Your task to perform on an android device: turn on the 12-hour format for clock Image 0: 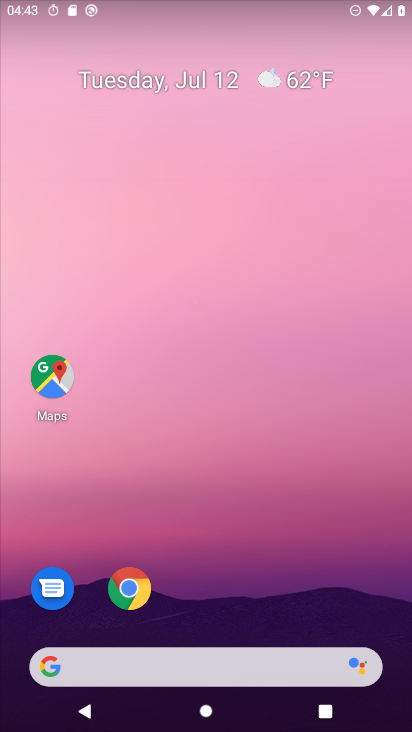
Step 0: drag from (232, 572) to (310, 102)
Your task to perform on an android device: turn on the 12-hour format for clock Image 1: 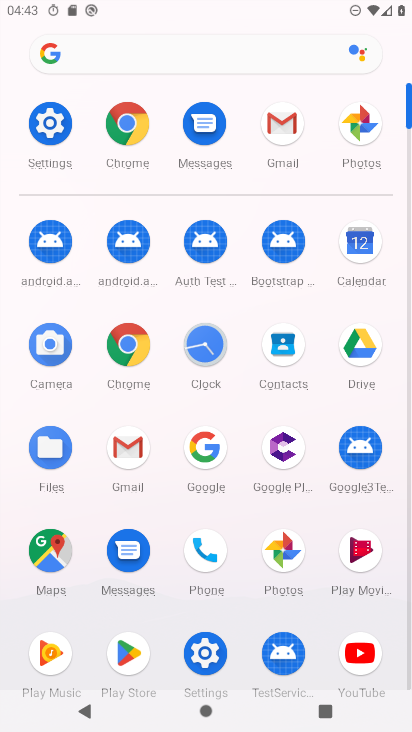
Step 1: click (210, 656)
Your task to perform on an android device: turn on the 12-hour format for clock Image 2: 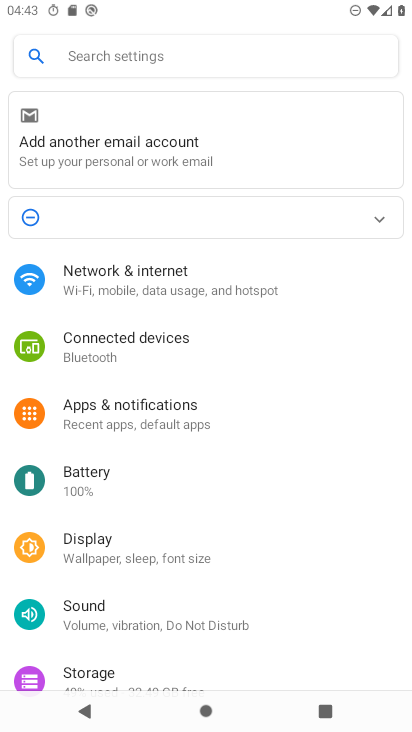
Step 2: drag from (109, 646) to (213, 303)
Your task to perform on an android device: turn on the 12-hour format for clock Image 3: 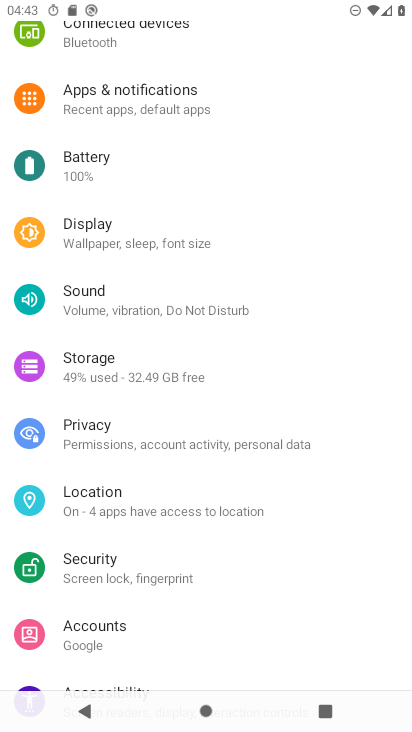
Step 3: drag from (148, 627) to (178, 302)
Your task to perform on an android device: turn on the 12-hour format for clock Image 4: 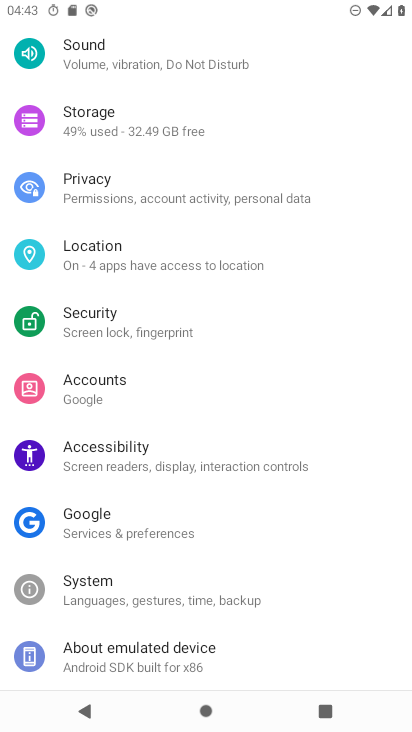
Step 4: click (128, 603)
Your task to perform on an android device: turn on the 12-hour format for clock Image 5: 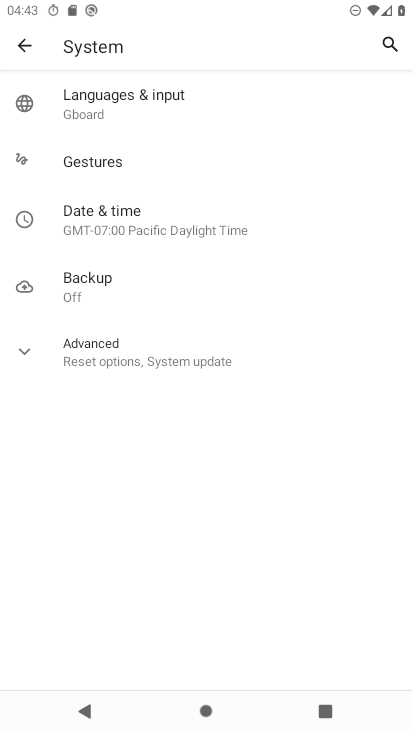
Step 5: click (177, 224)
Your task to perform on an android device: turn on the 12-hour format for clock Image 6: 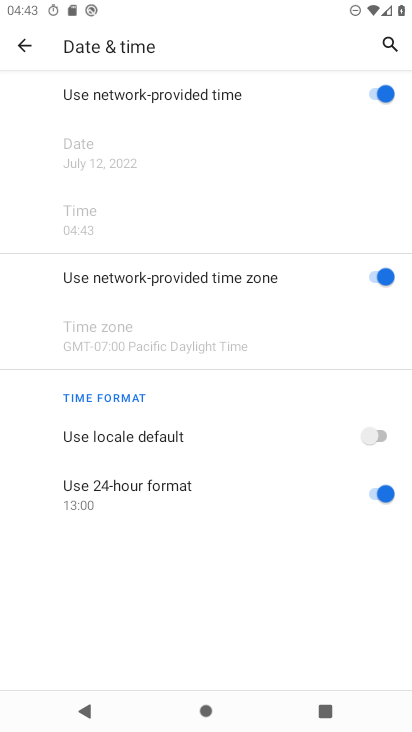
Step 6: click (361, 497)
Your task to perform on an android device: turn on the 12-hour format for clock Image 7: 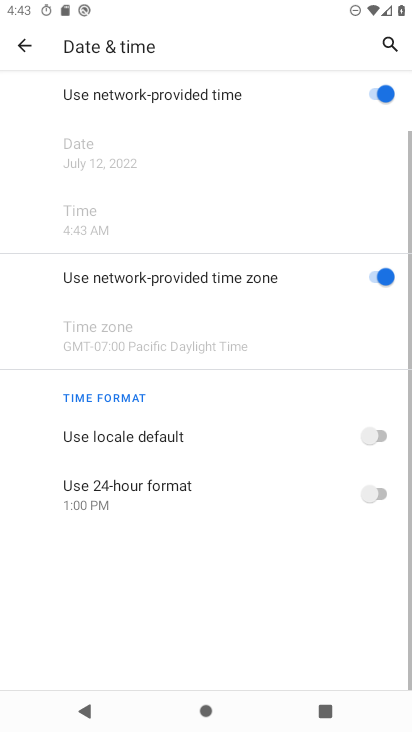
Step 7: click (393, 434)
Your task to perform on an android device: turn on the 12-hour format for clock Image 8: 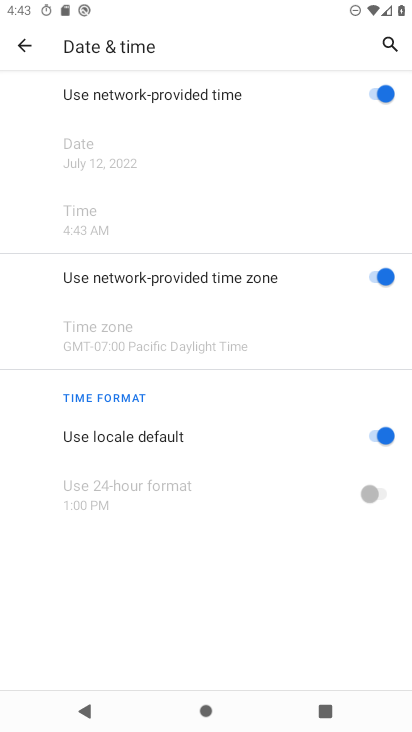
Step 8: task complete